Your task to perform on an android device: turn off javascript in the chrome app Image 0: 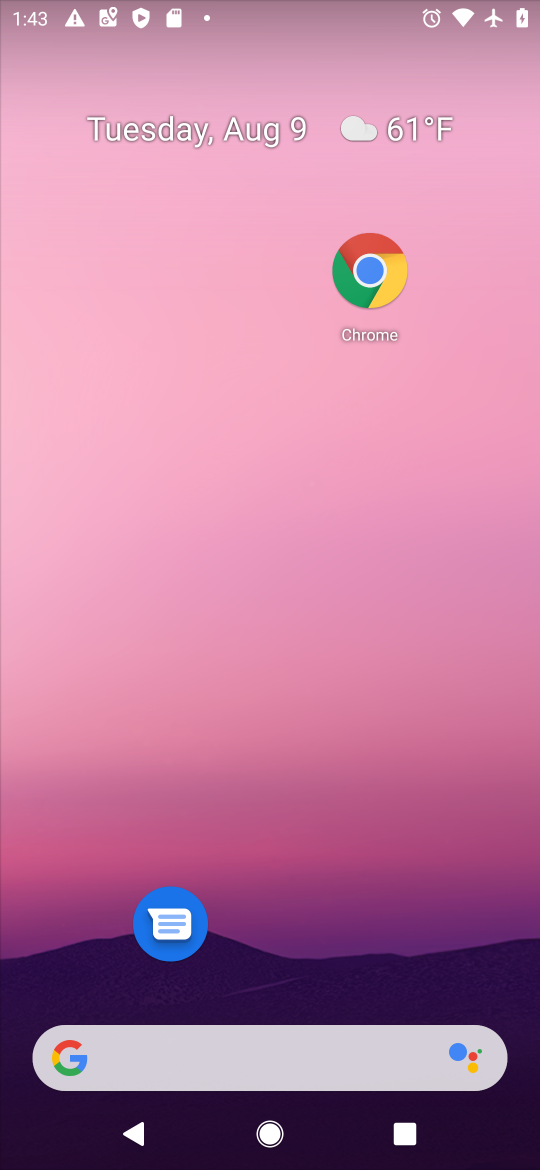
Step 0: click (384, 276)
Your task to perform on an android device: turn off javascript in the chrome app Image 1: 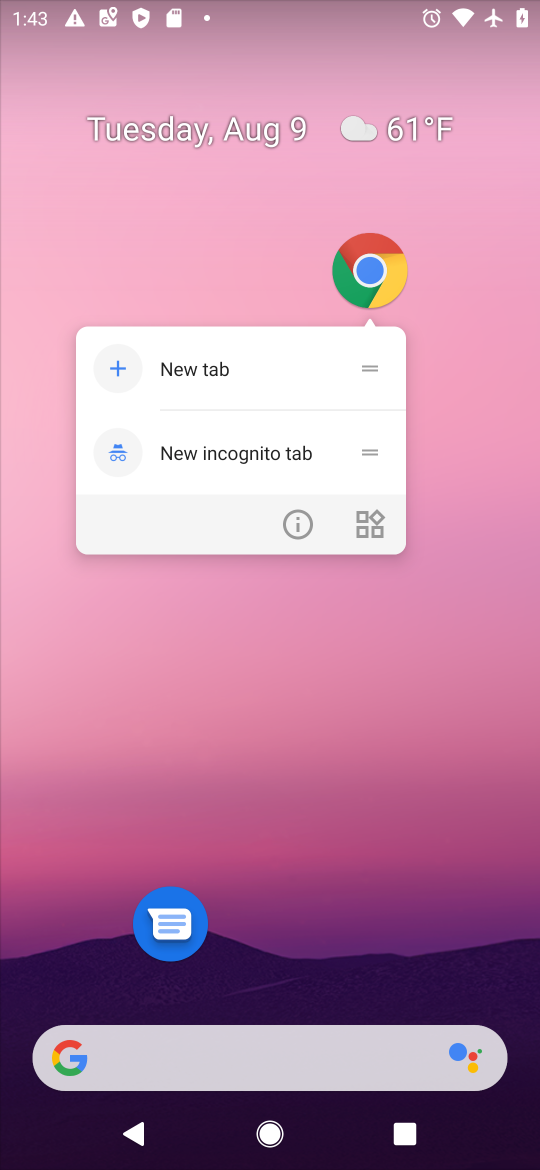
Step 1: click (374, 275)
Your task to perform on an android device: turn off javascript in the chrome app Image 2: 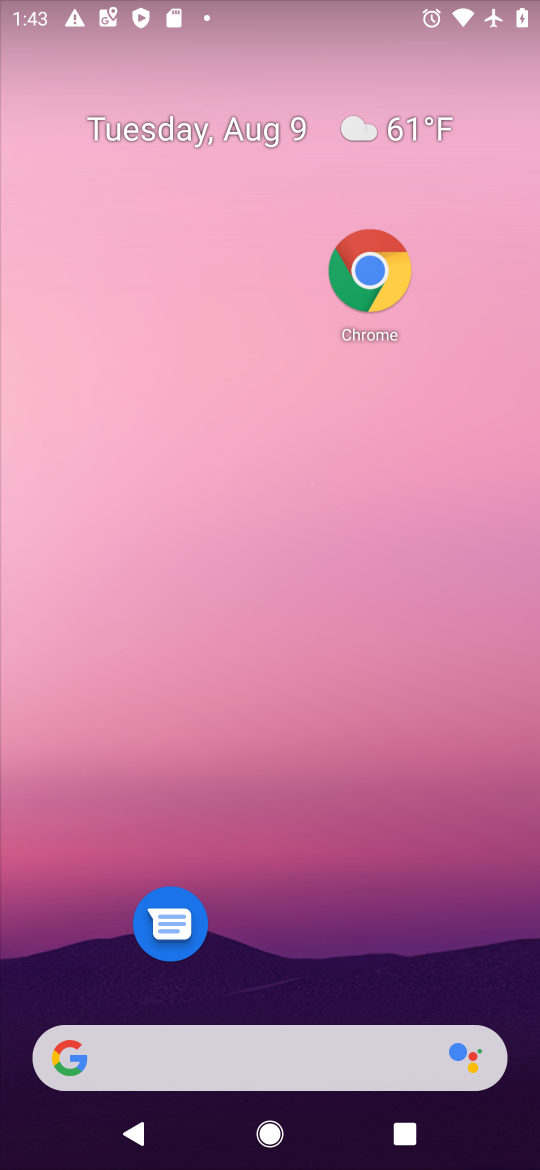
Step 2: click (374, 275)
Your task to perform on an android device: turn off javascript in the chrome app Image 3: 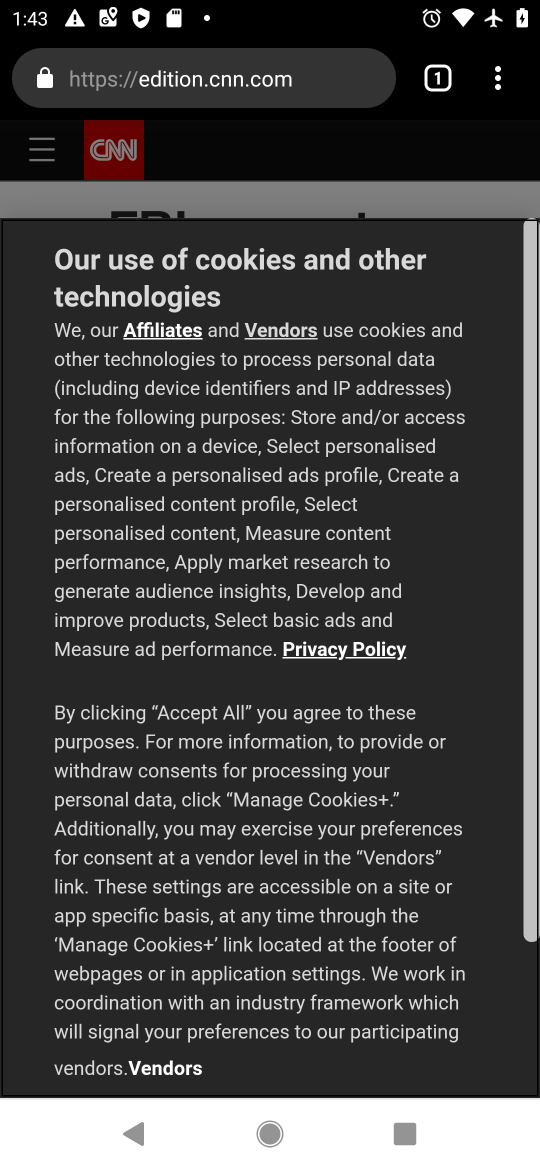
Step 3: click (497, 70)
Your task to perform on an android device: turn off javascript in the chrome app Image 4: 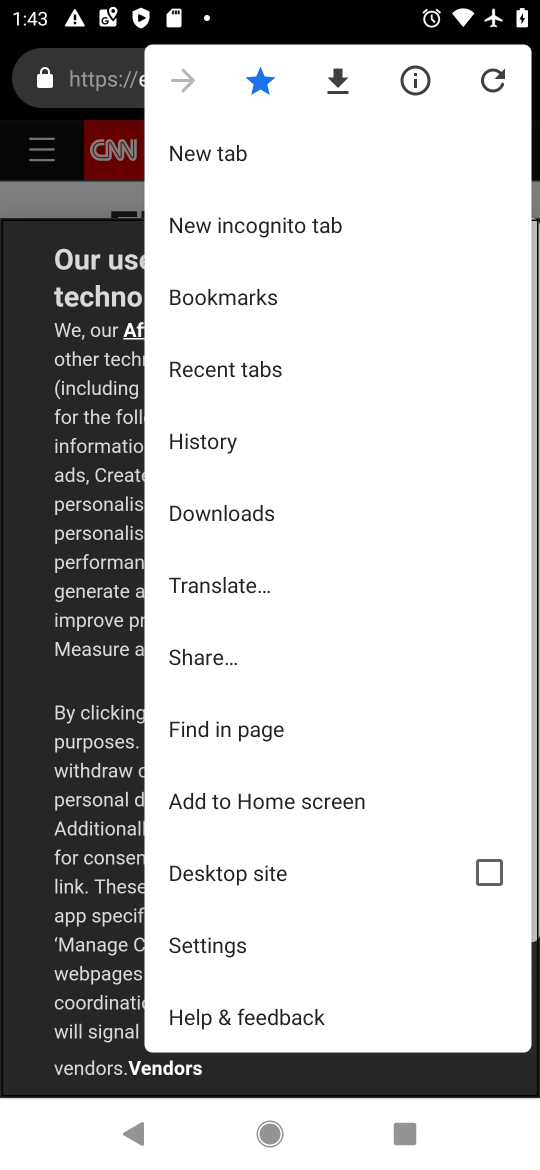
Step 4: click (274, 954)
Your task to perform on an android device: turn off javascript in the chrome app Image 5: 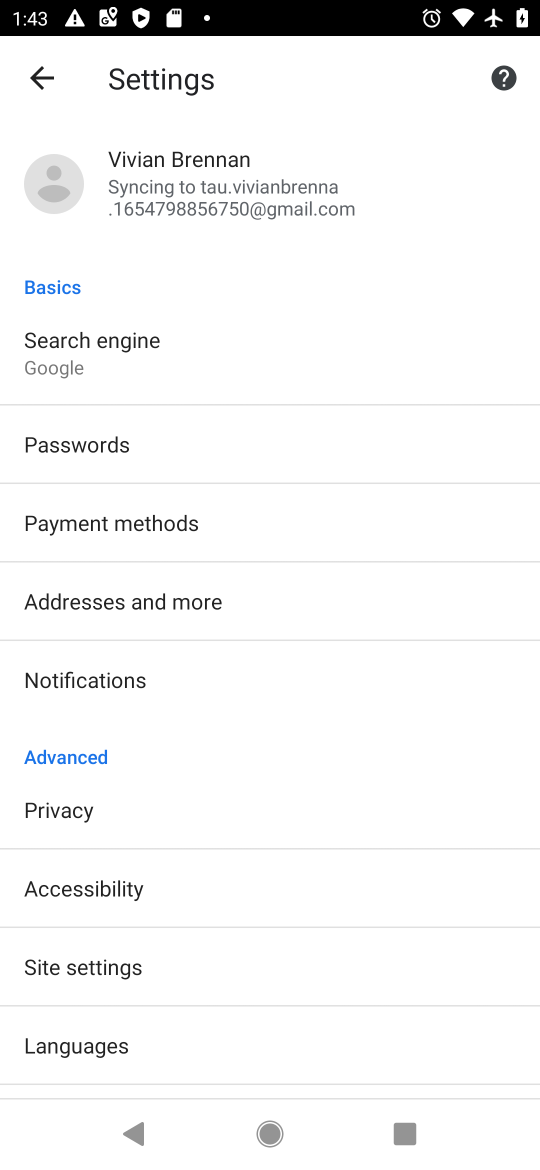
Step 5: click (289, 955)
Your task to perform on an android device: turn off javascript in the chrome app Image 6: 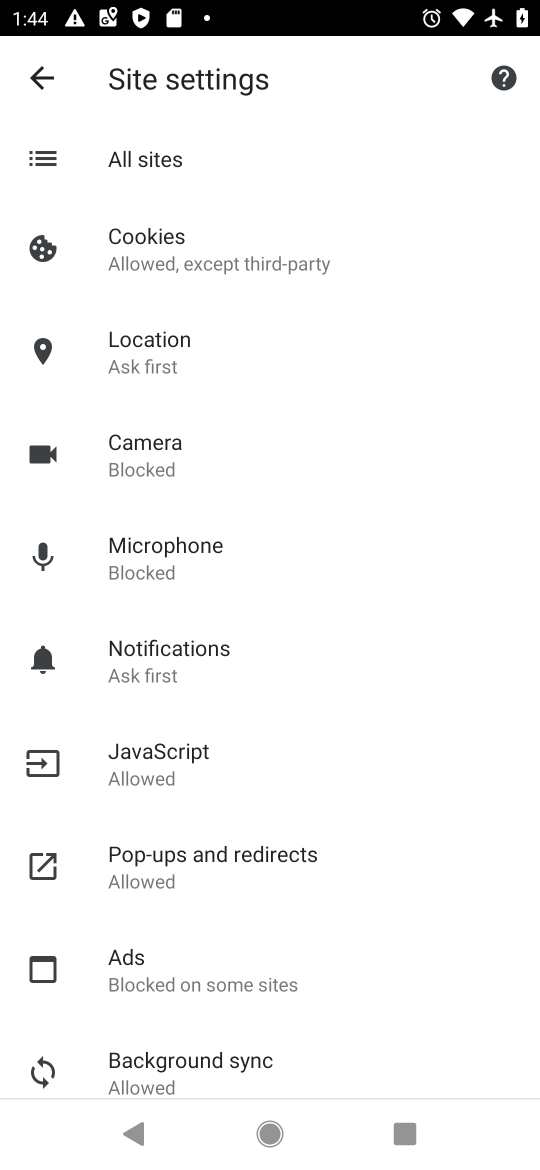
Step 6: click (145, 745)
Your task to perform on an android device: turn off javascript in the chrome app Image 7: 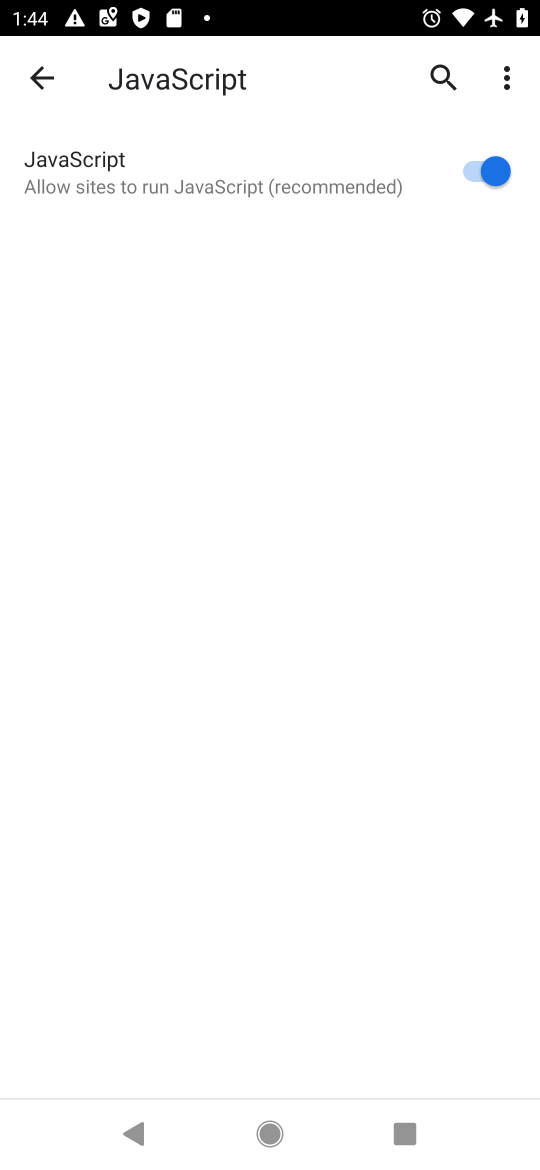
Step 7: task complete